Your task to perform on an android device: turn on the 24-hour format for clock Image 0: 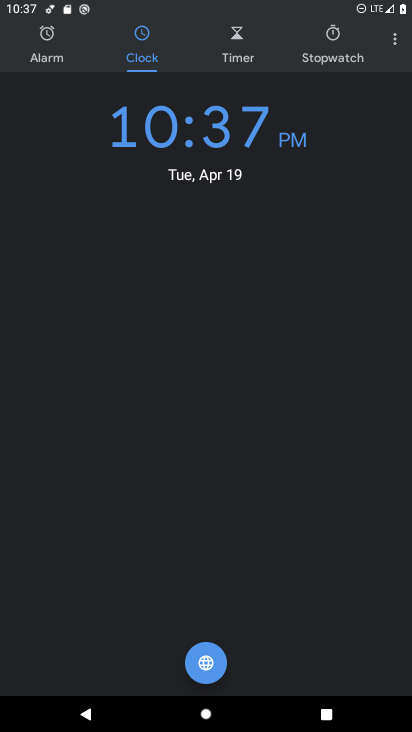
Step 0: click (395, 40)
Your task to perform on an android device: turn on the 24-hour format for clock Image 1: 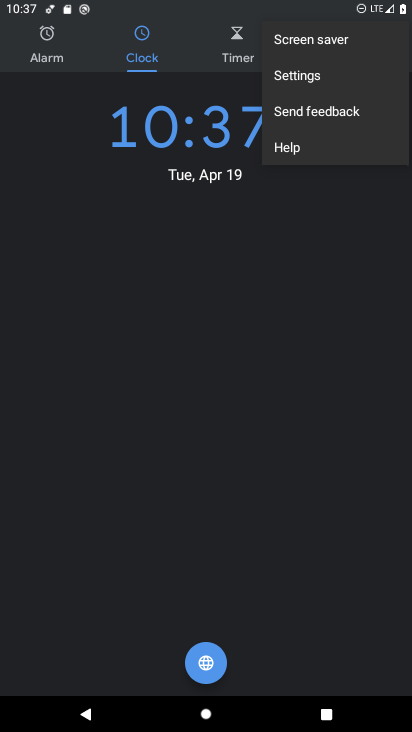
Step 1: click (351, 73)
Your task to perform on an android device: turn on the 24-hour format for clock Image 2: 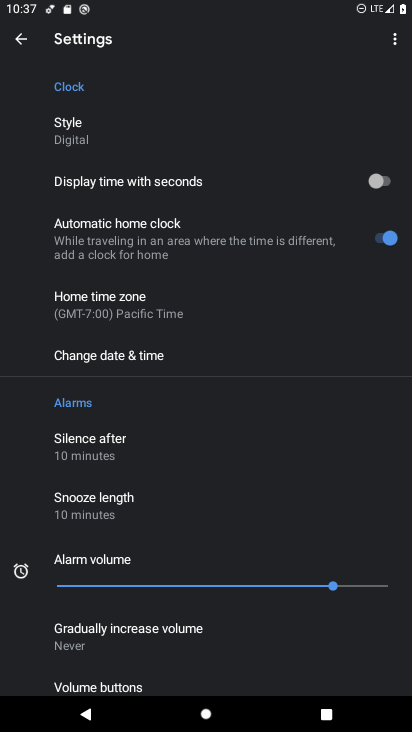
Step 2: click (190, 367)
Your task to perform on an android device: turn on the 24-hour format for clock Image 3: 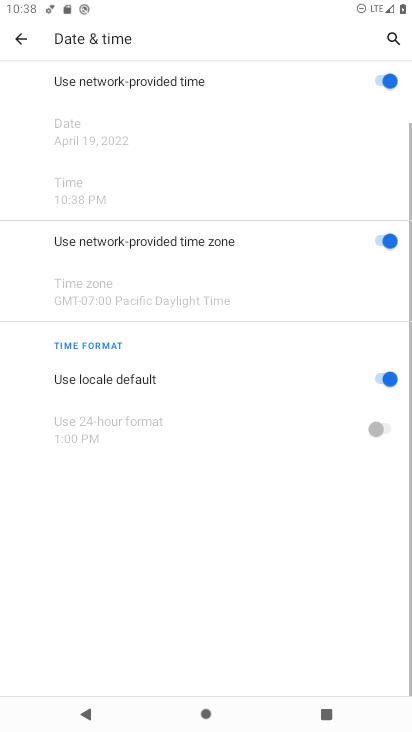
Step 3: click (391, 372)
Your task to perform on an android device: turn on the 24-hour format for clock Image 4: 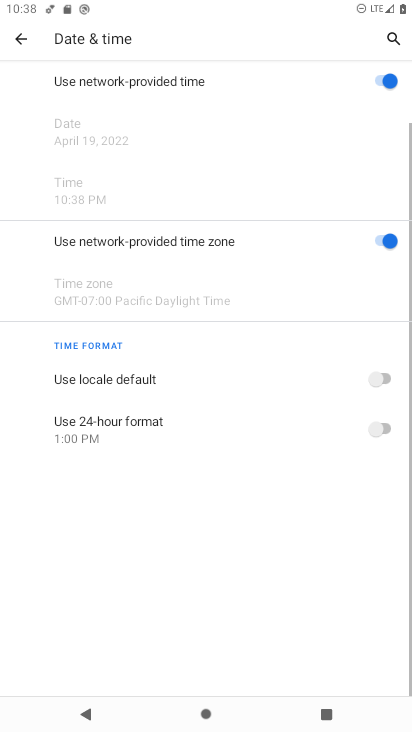
Step 4: click (384, 426)
Your task to perform on an android device: turn on the 24-hour format for clock Image 5: 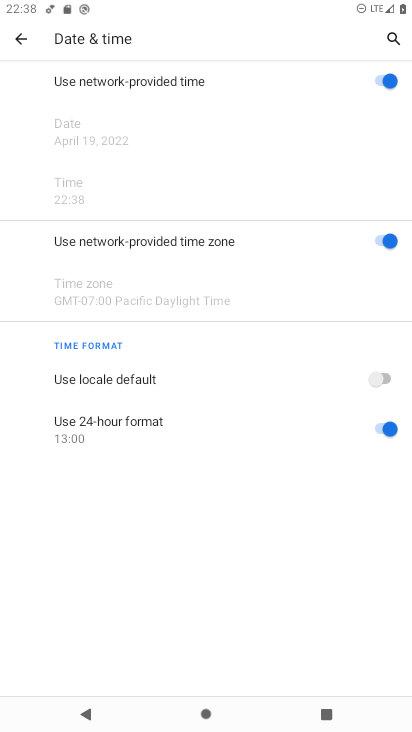
Step 5: task complete